Your task to perform on an android device: Go to notification settings Image 0: 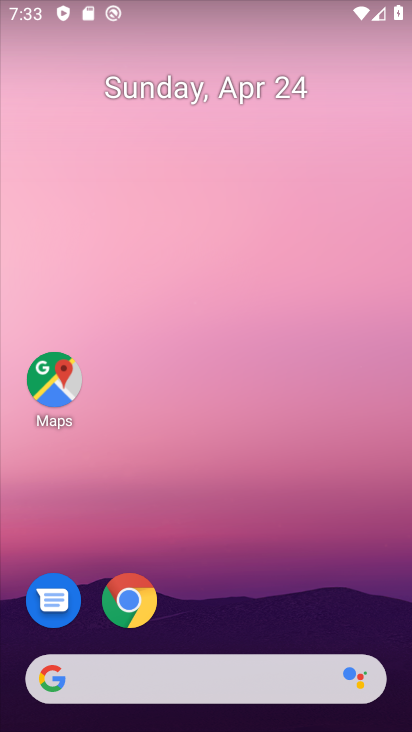
Step 0: drag from (324, 609) to (350, 150)
Your task to perform on an android device: Go to notification settings Image 1: 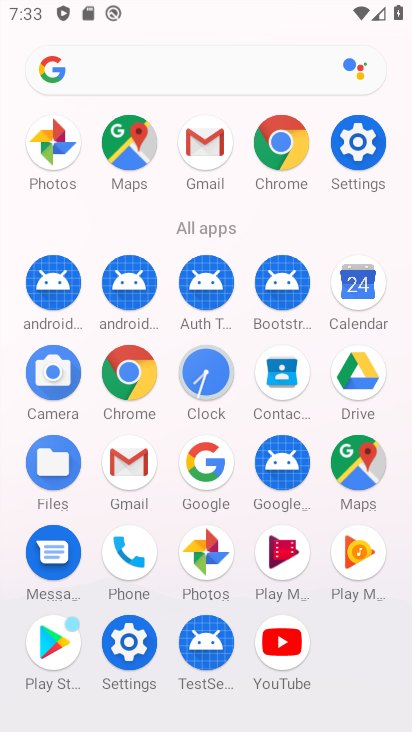
Step 1: click (366, 140)
Your task to perform on an android device: Go to notification settings Image 2: 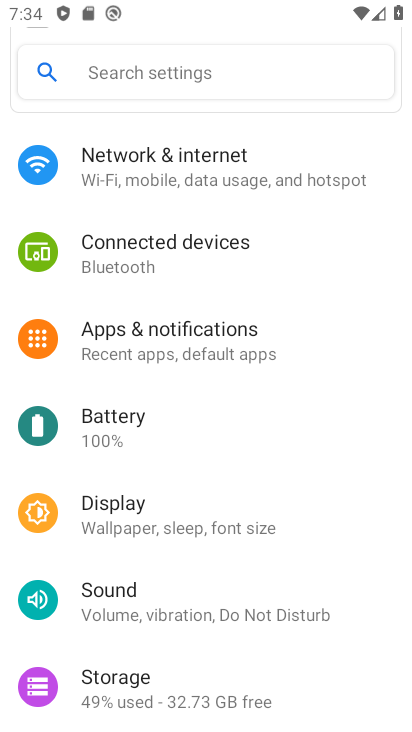
Step 2: drag from (336, 497) to (402, 234)
Your task to perform on an android device: Go to notification settings Image 3: 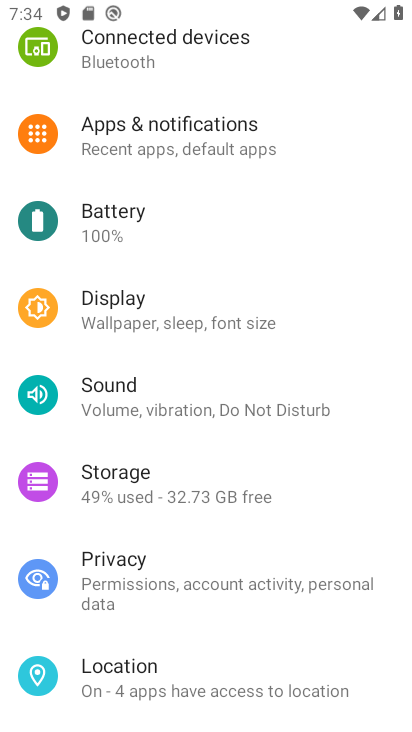
Step 3: drag from (377, 510) to (378, 321)
Your task to perform on an android device: Go to notification settings Image 4: 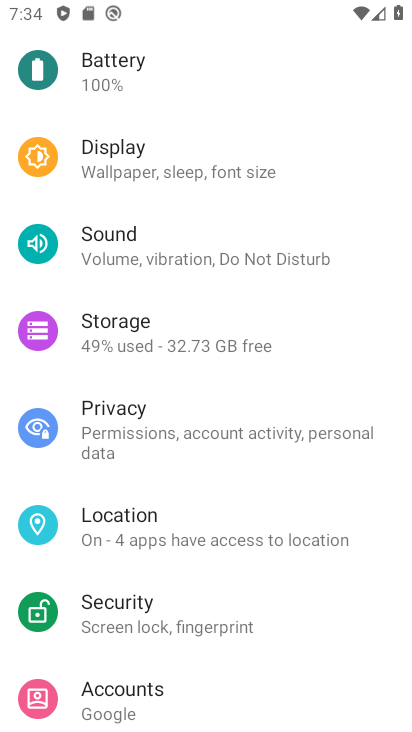
Step 4: drag from (366, 547) to (374, 303)
Your task to perform on an android device: Go to notification settings Image 5: 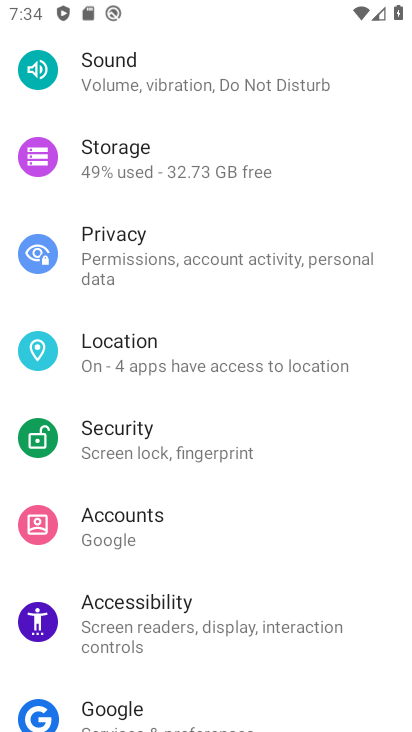
Step 5: drag from (353, 529) to (361, 248)
Your task to perform on an android device: Go to notification settings Image 6: 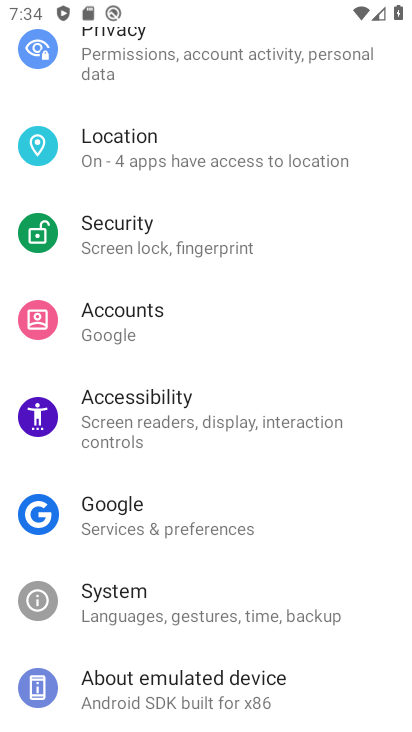
Step 6: drag from (346, 511) to (369, 297)
Your task to perform on an android device: Go to notification settings Image 7: 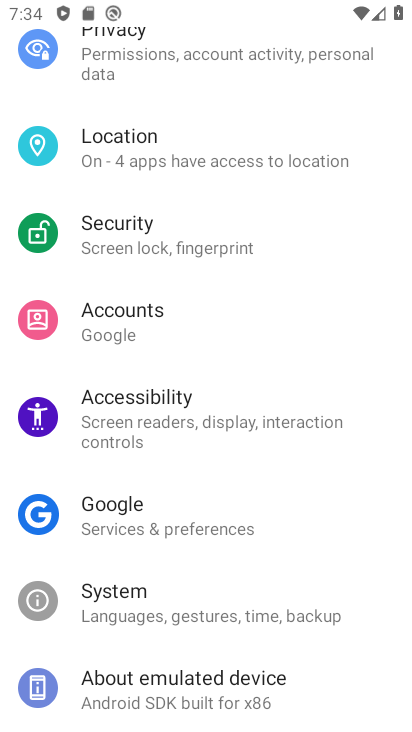
Step 7: drag from (344, 231) to (344, 494)
Your task to perform on an android device: Go to notification settings Image 8: 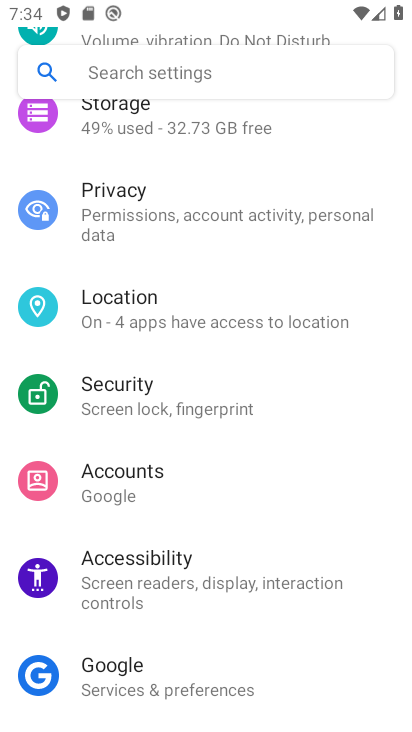
Step 8: drag from (374, 247) to (361, 464)
Your task to perform on an android device: Go to notification settings Image 9: 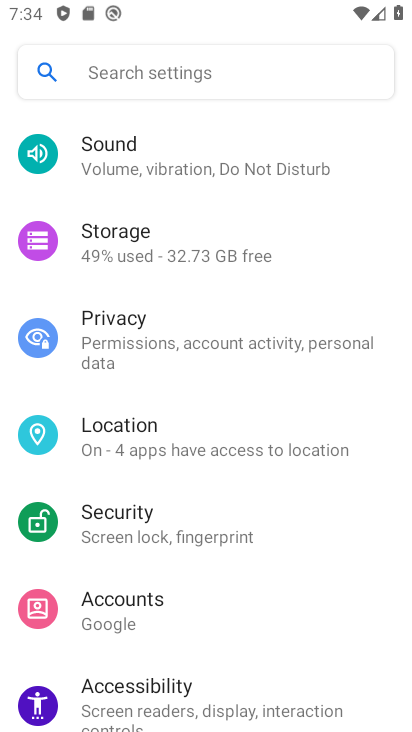
Step 9: drag from (390, 264) to (361, 451)
Your task to perform on an android device: Go to notification settings Image 10: 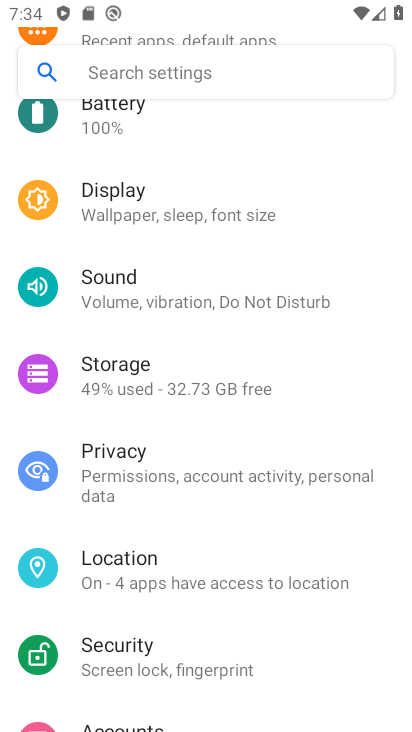
Step 10: drag from (359, 164) to (364, 405)
Your task to perform on an android device: Go to notification settings Image 11: 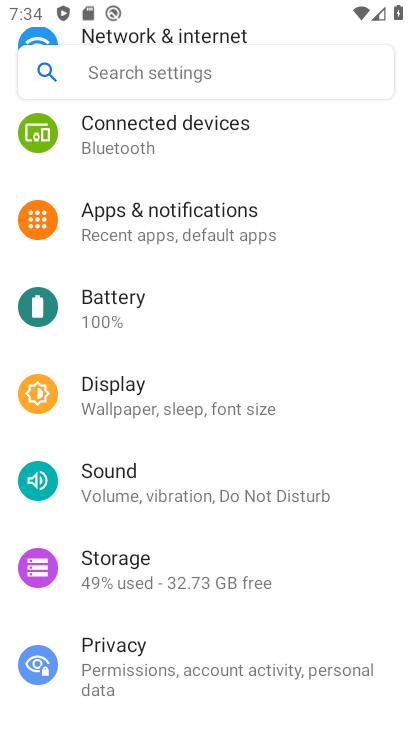
Step 11: drag from (359, 206) to (310, 502)
Your task to perform on an android device: Go to notification settings Image 12: 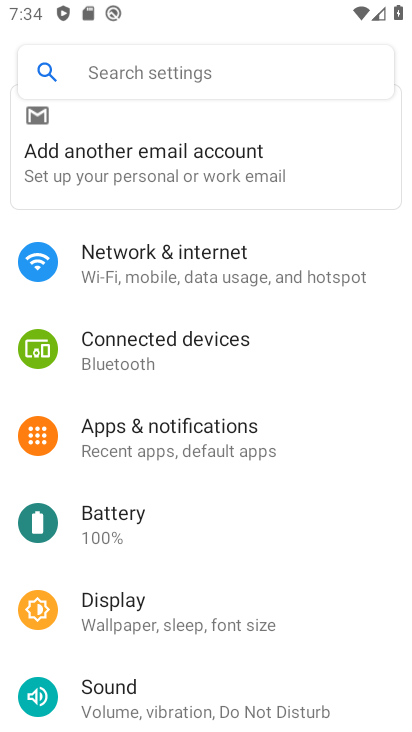
Step 12: drag from (390, 259) to (355, 494)
Your task to perform on an android device: Go to notification settings Image 13: 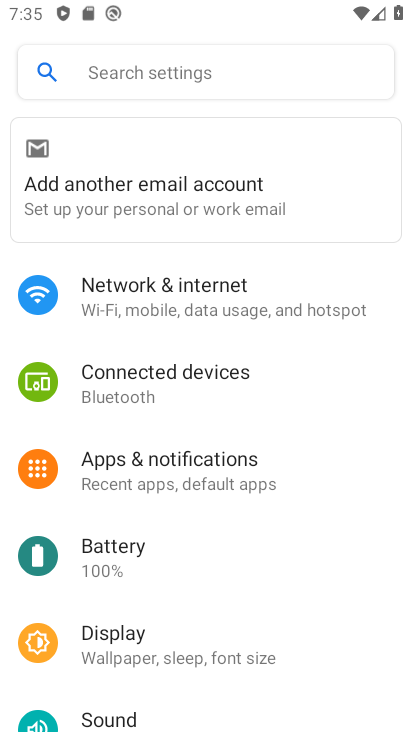
Step 13: click (248, 470)
Your task to perform on an android device: Go to notification settings Image 14: 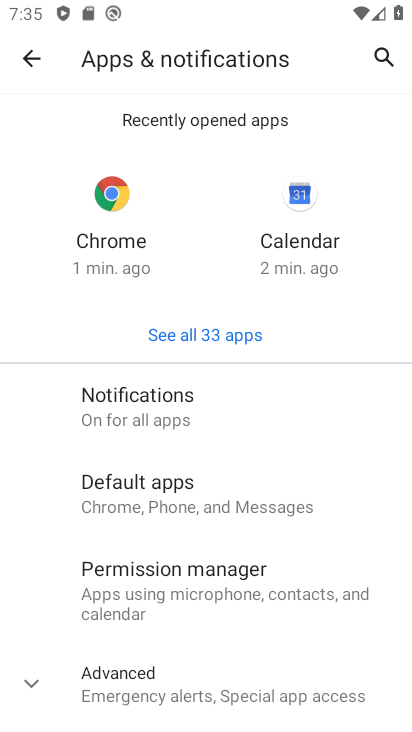
Step 14: click (171, 417)
Your task to perform on an android device: Go to notification settings Image 15: 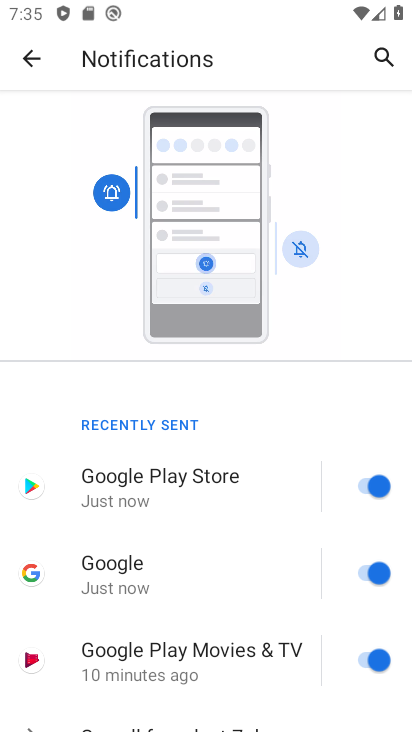
Step 15: task complete